Your task to perform on an android device: read, delete, or share a saved page in the chrome app Image 0: 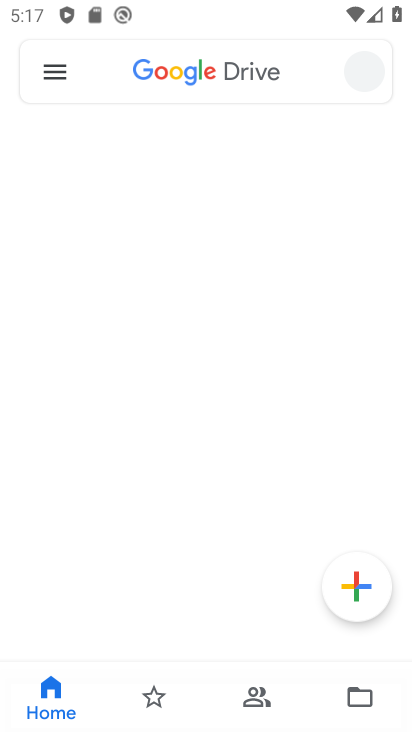
Step 0: drag from (307, 593) to (259, 178)
Your task to perform on an android device: read, delete, or share a saved page in the chrome app Image 1: 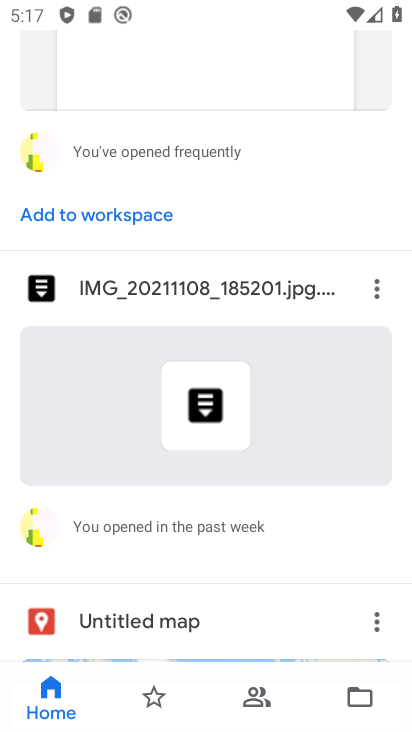
Step 1: press home button
Your task to perform on an android device: read, delete, or share a saved page in the chrome app Image 2: 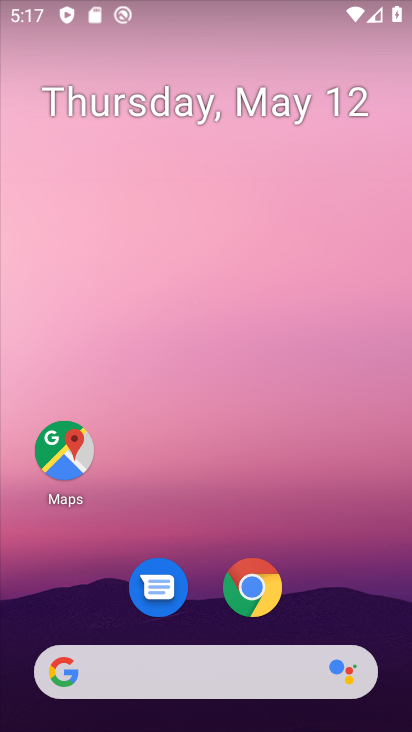
Step 2: click (241, 617)
Your task to perform on an android device: read, delete, or share a saved page in the chrome app Image 3: 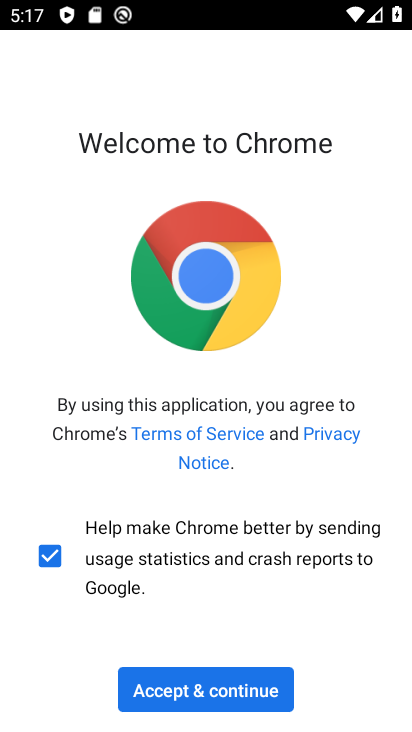
Step 3: click (209, 695)
Your task to perform on an android device: read, delete, or share a saved page in the chrome app Image 4: 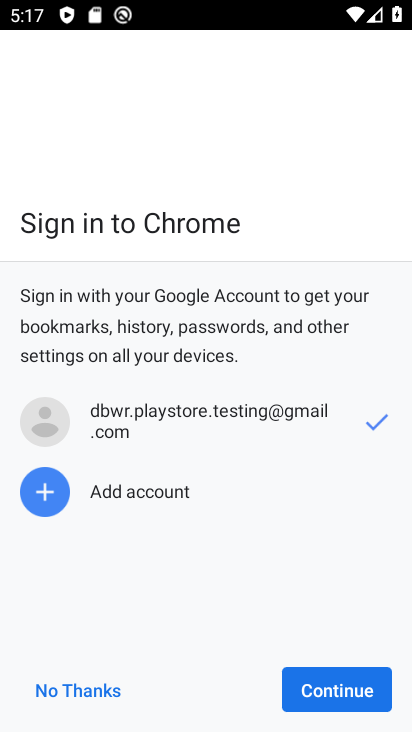
Step 4: click (306, 678)
Your task to perform on an android device: read, delete, or share a saved page in the chrome app Image 5: 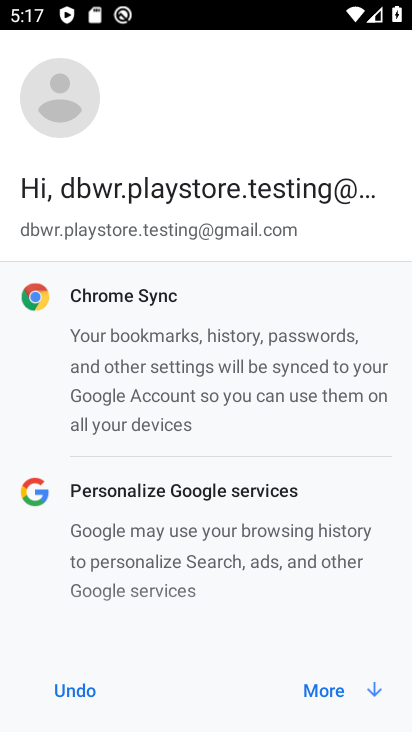
Step 5: click (342, 695)
Your task to perform on an android device: read, delete, or share a saved page in the chrome app Image 6: 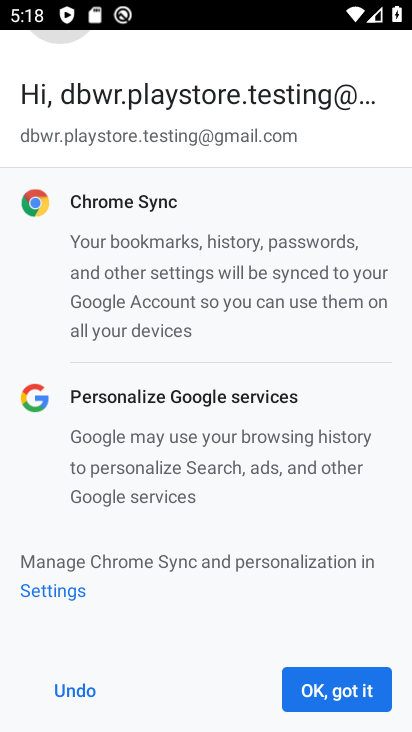
Step 6: click (342, 695)
Your task to perform on an android device: read, delete, or share a saved page in the chrome app Image 7: 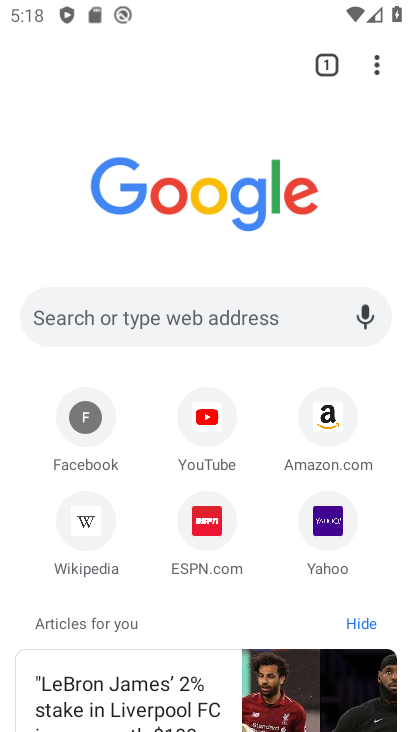
Step 7: drag from (224, 620) to (204, 232)
Your task to perform on an android device: read, delete, or share a saved page in the chrome app Image 8: 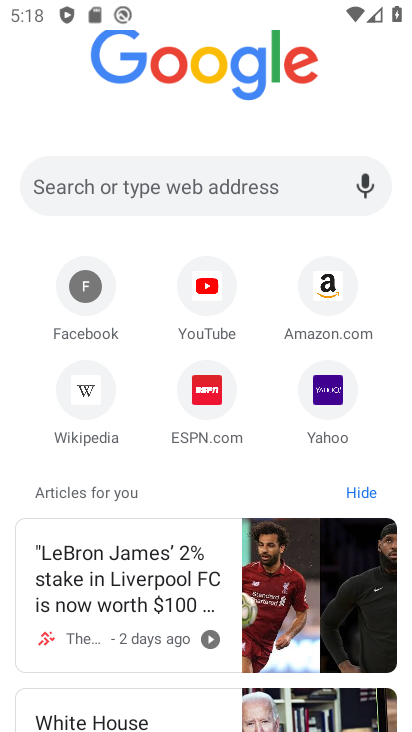
Step 8: drag from (332, 273) to (314, 547)
Your task to perform on an android device: read, delete, or share a saved page in the chrome app Image 9: 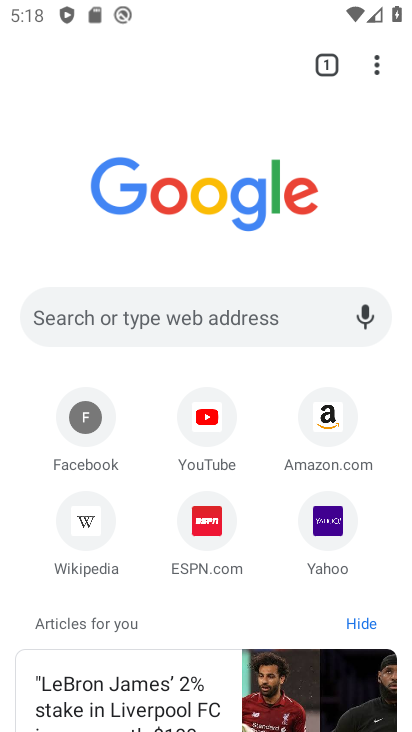
Step 9: click (372, 66)
Your task to perform on an android device: read, delete, or share a saved page in the chrome app Image 10: 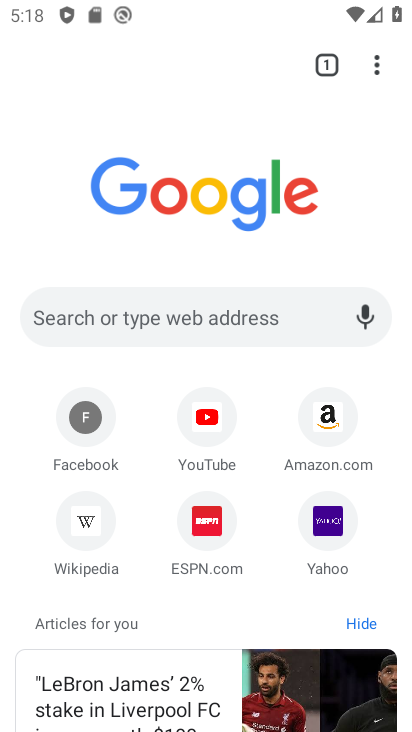
Step 10: click (379, 75)
Your task to perform on an android device: read, delete, or share a saved page in the chrome app Image 11: 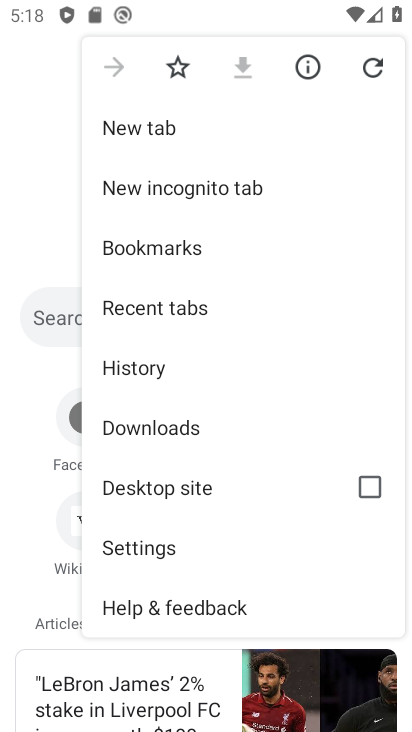
Step 11: task complete